Your task to perform on an android device: turn off location Image 0: 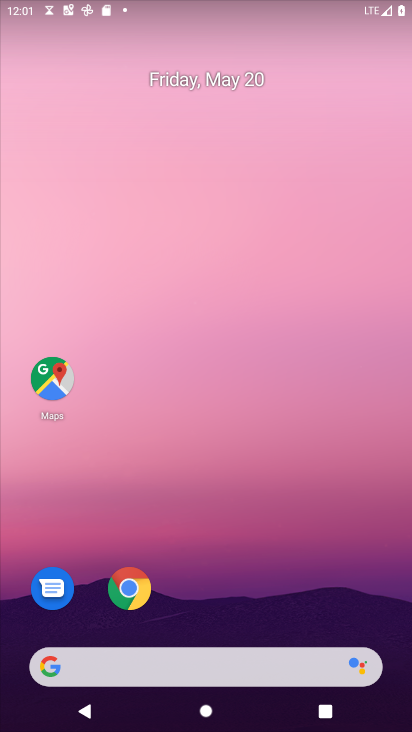
Step 0: drag from (285, 542) to (185, 1)
Your task to perform on an android device: turn off location Image 1: 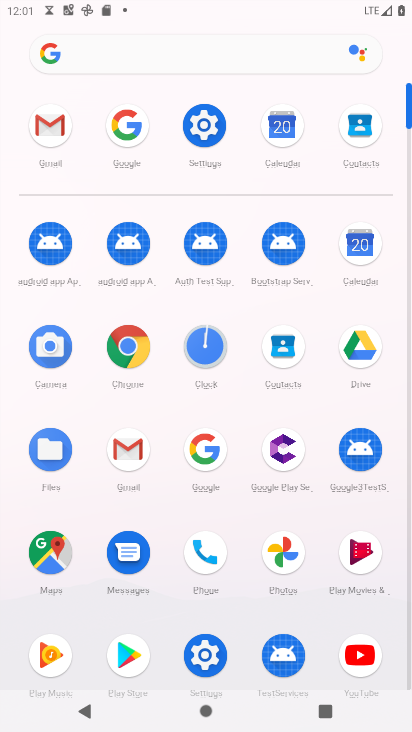
Step 1: click (201, 133)
Your task to perform on an android device: turn off location Image 2: 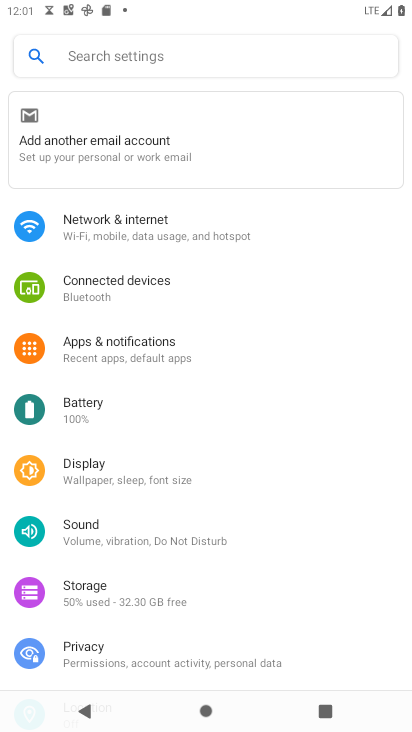
Step 2: drag from (171, 590) to (167, 123)
Your task to perform on an android device: turn off location Image 3: 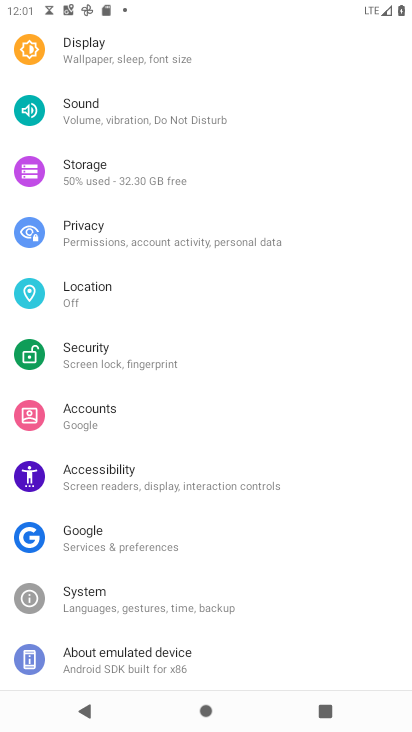
Step 3: click (117, 297)
Your task to perform on an android device: turn off location Image 4: 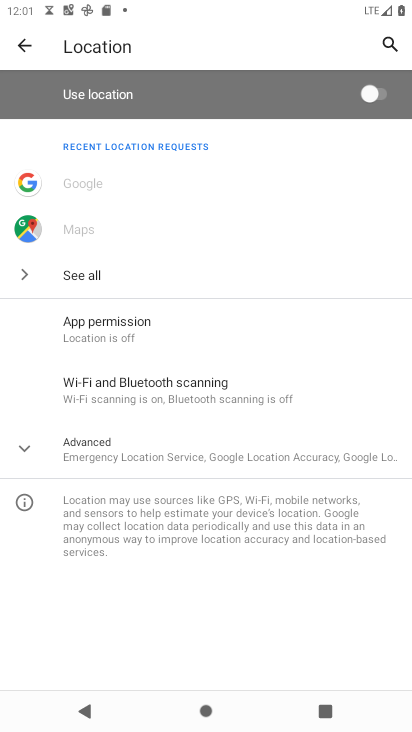
Step 4: task complete